Your task to perform on an android device: empty trash in google photos Image 0: 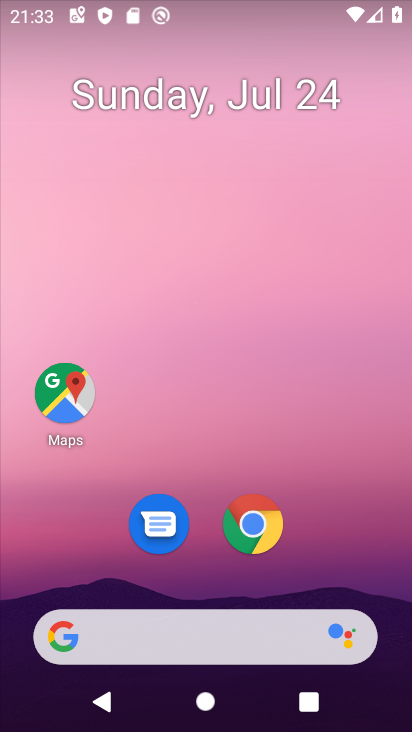
Step 0: press home button
Your task to perform on an android device: empty trash in google photos Image 1: 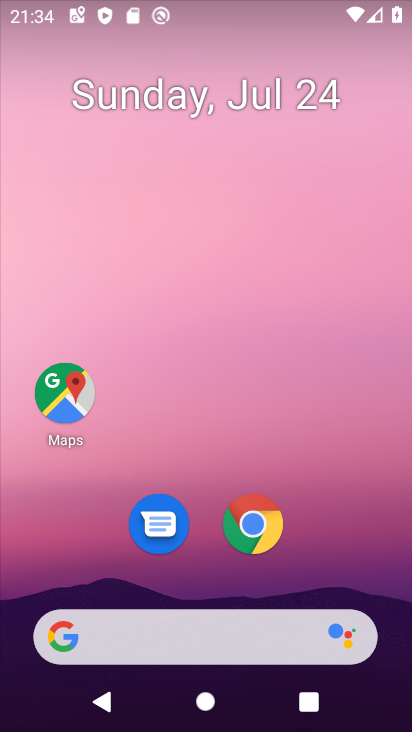
Step 1: drag from (201, 644) to (296, 123)
Your task to perform on an android device: empty trash in google photos Image 2: 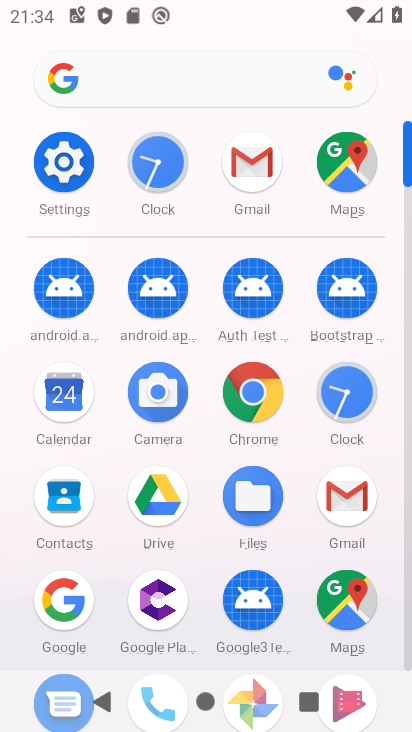
Step 2: drag from (200, 593) to (257, 260)
Your task to perform on an android device: empty trash in google photos Image 3: 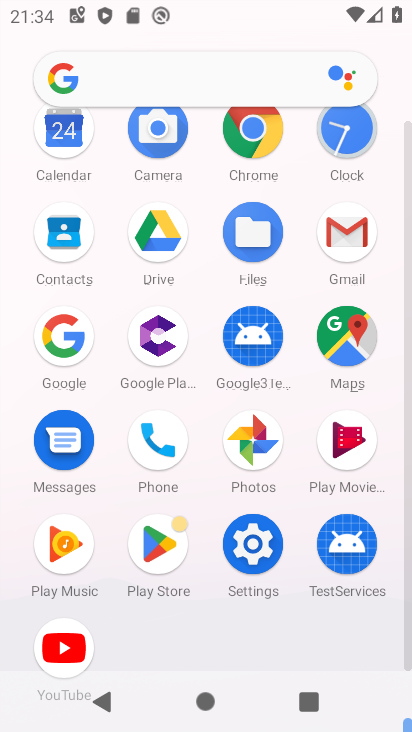
Step 3: click (247, 439)
Your task to perform on an android device: empty trash in google photos Image 4: 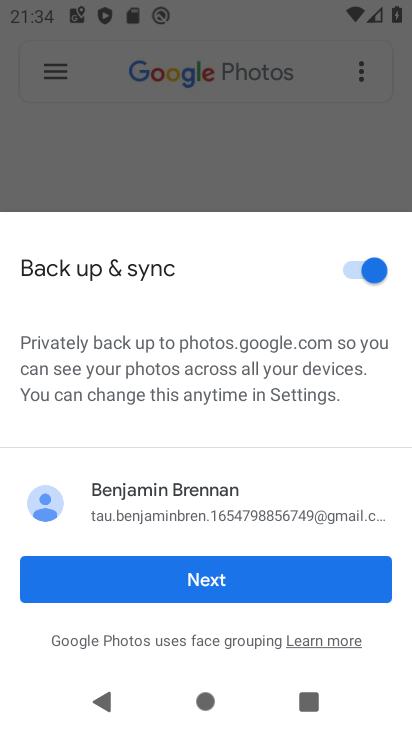
Step 4: click (222, 588)
Your task to perform on an android device: empty trash in google photos Image 5: 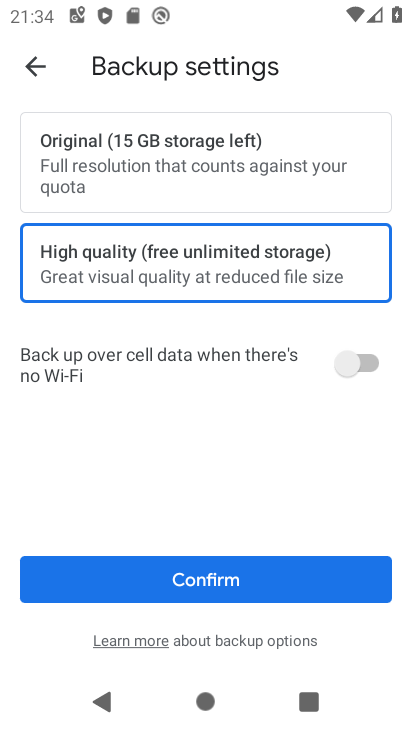
Step 5: click (221, 591)
Your task to perform on an android device: empty trash in google photos Image 6: 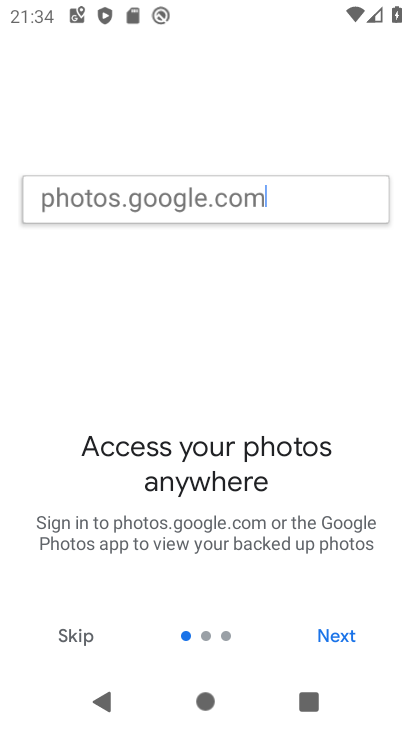
Step 6: click (333, 638)
Your task to perform on an android device: empty trash in google photos Image 7: 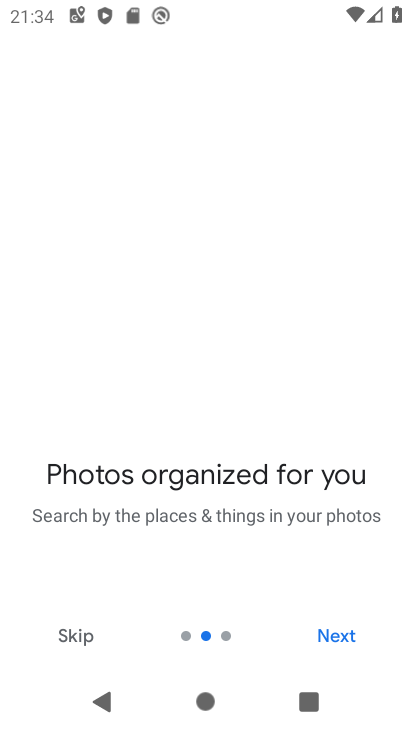
Step 7: click (333, 638)
Your task to perform on an android device: empty trash in google photos Image 8: 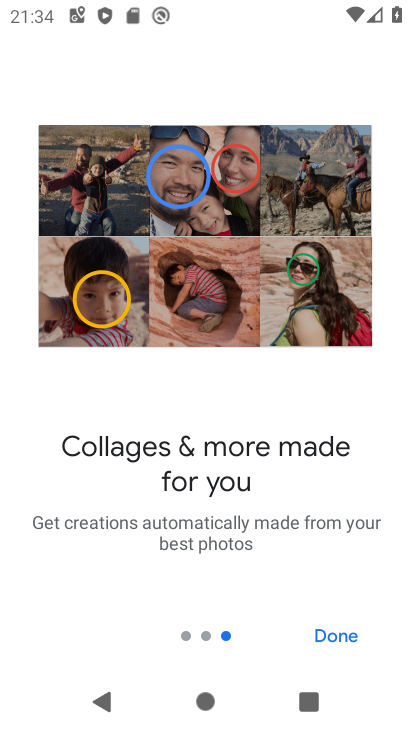
Step 8: click (333, 638)
Your task to perform on an android device: empty trash in google photos Image 9: 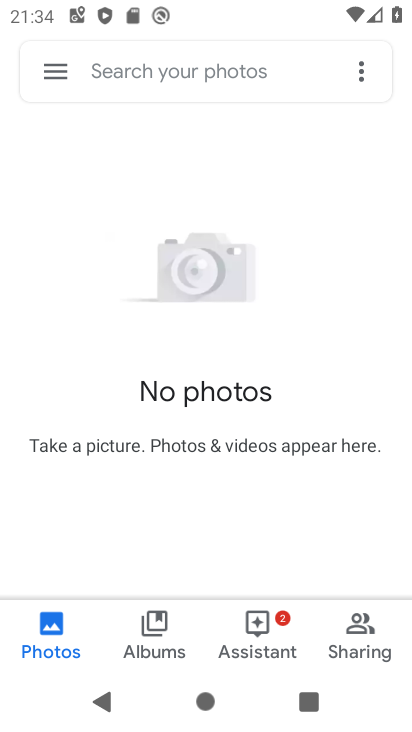
Step 9: click (50, 70)
Your task to perform on an android device: empty trash in google photos Image 10: 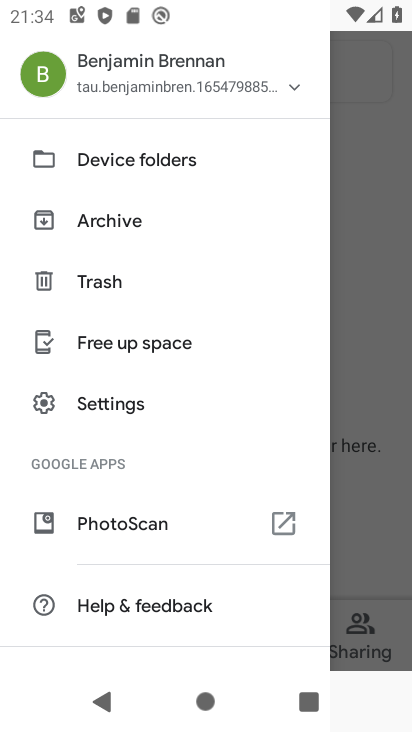
Step 10: click (100, 279)
Your task to perform on an android device: empty trash in google photos Image 11: 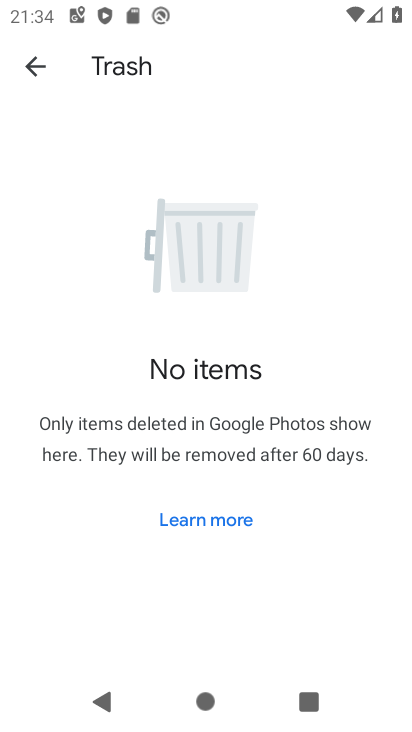
Step 11: task complete